Your task to perform on an android device: set an alarm Image 0: 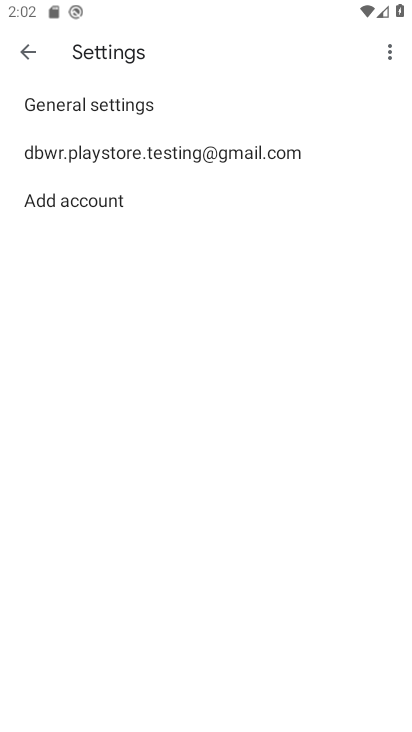
Step 0: press home button
Your task to perform on an android device: set an alarm Image 1: 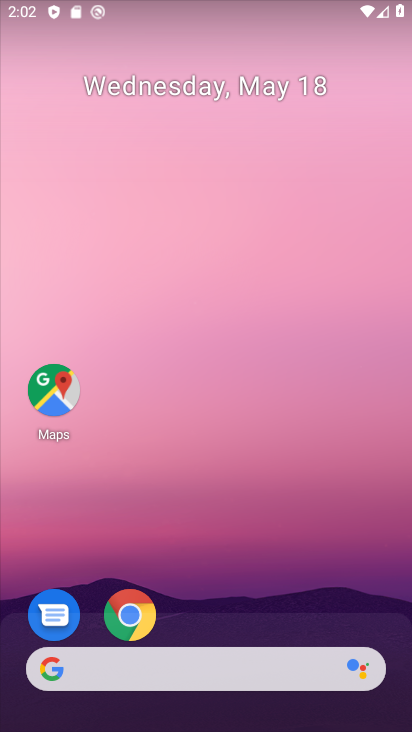
Step 1: drag from (165, 558) to (185, 176)
Your task to perform on an android device: set an alarm Image 2: 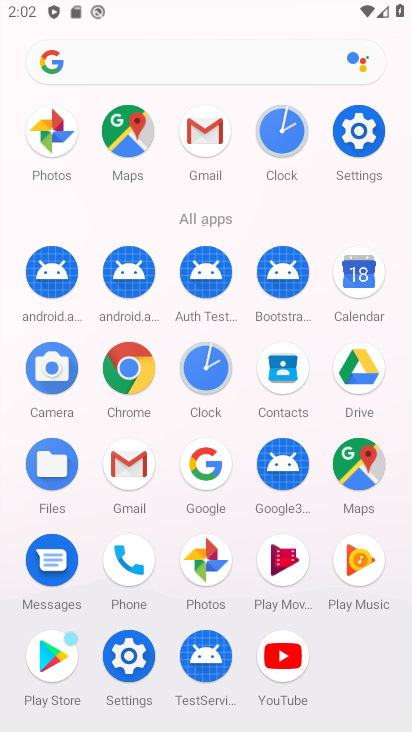
Step 2: click (196, 370)
Your task to perform on an android device: set an alarm Image 3: 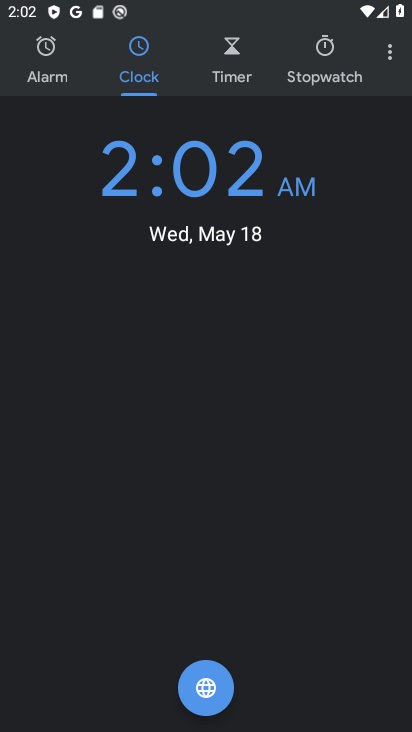
Step 3: click (51, 79)
Your task to perform on an android device: set an alarm Image 4: 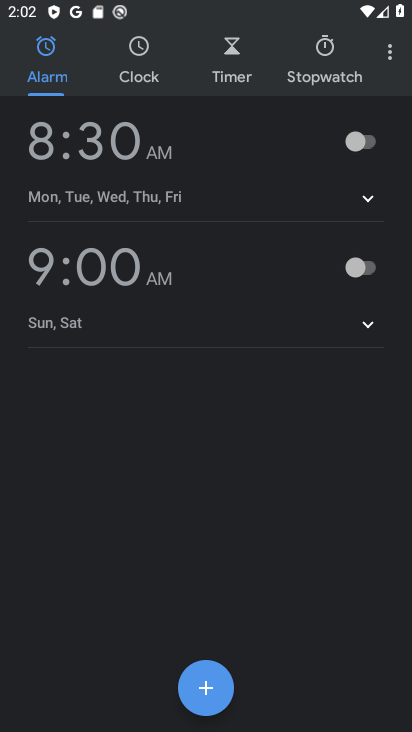
Step 4: task complete